Your task to perform on an android device: install app "Duolingo: language lessons" Image 0: 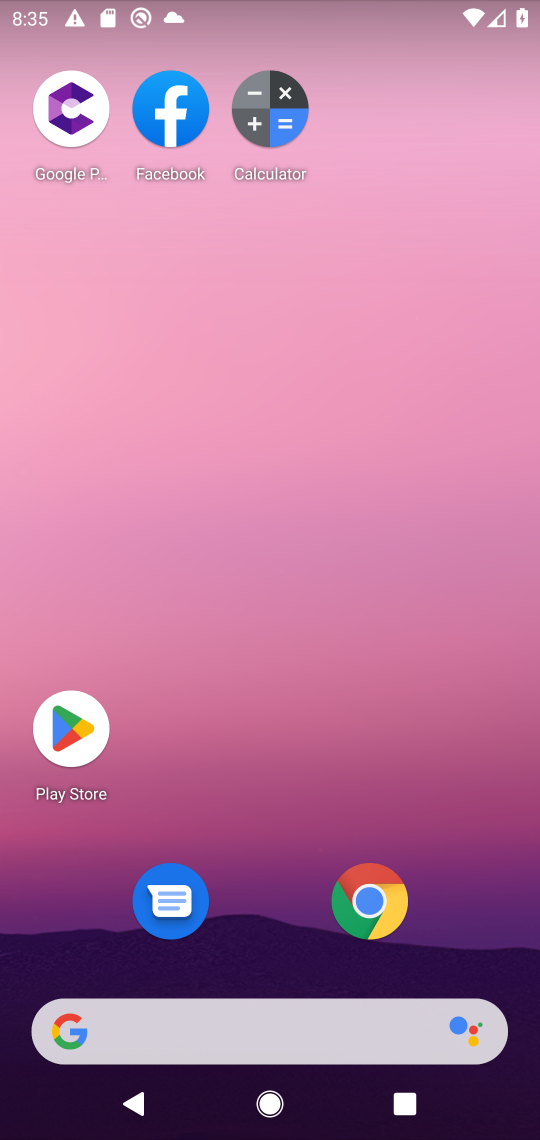
Step 0: click (53, 747)
Your task to perform on an android device: install app "Duolingo: language lessons" Image 1: 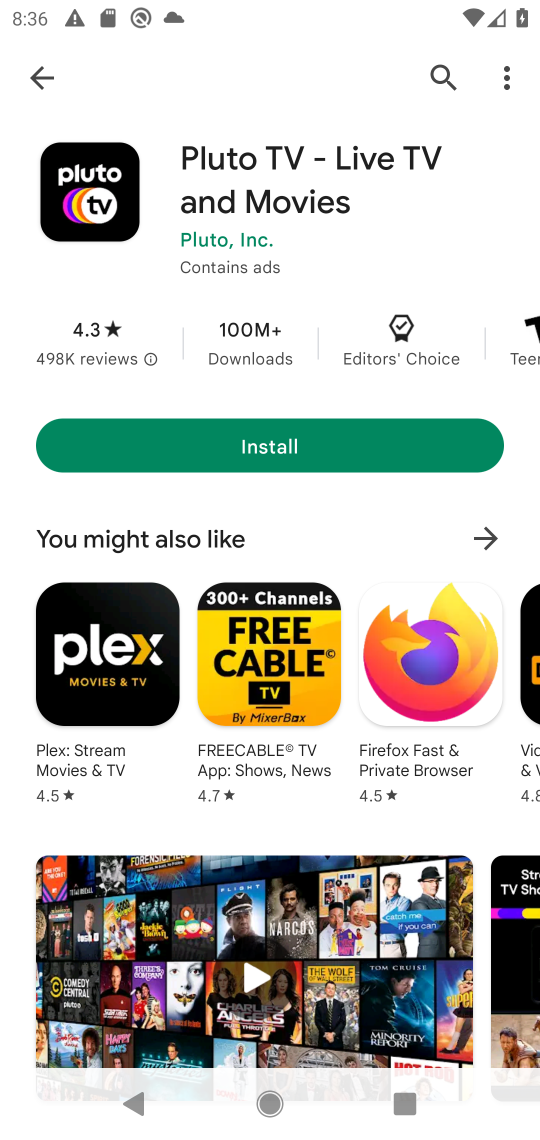
Step 1: click (439, 73)
Your task to perform on an android device: install app "Duolingo: language lessons" Image 2: 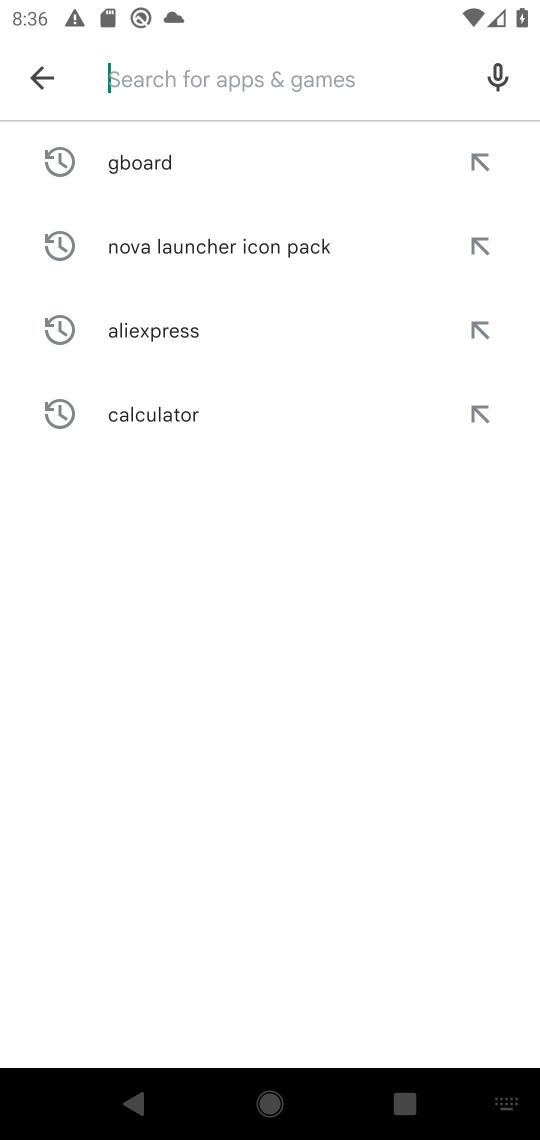
Step 2: type "Duolingo: language lessons"
Your task to perform on an android device: install app "Duolingo: language lessons" Image 3: 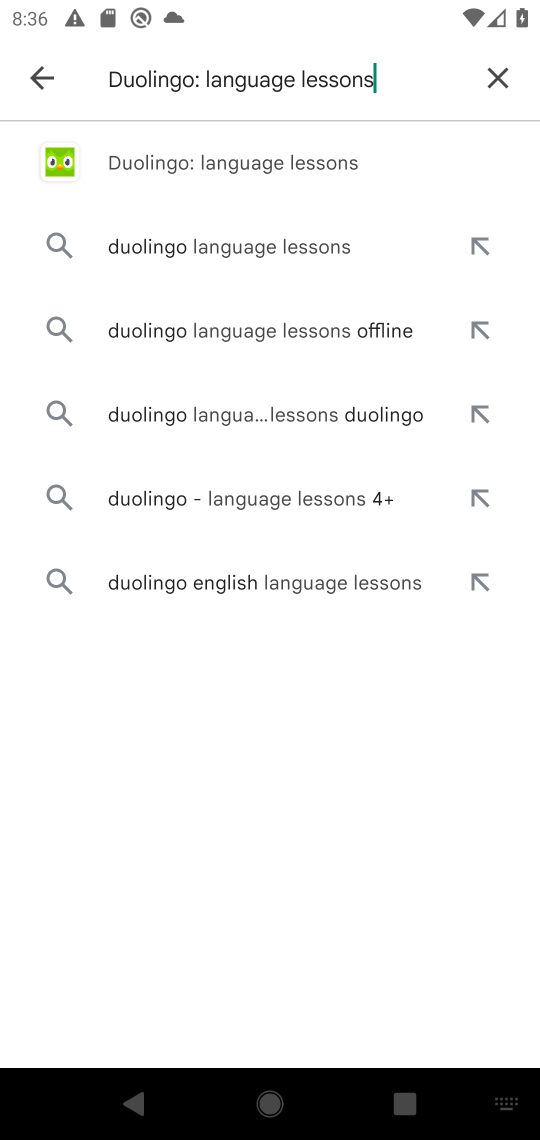
Step 3: click (228, 154)
Your task to perform on an android device: install app "Duolingo: language lessons" Image 4: 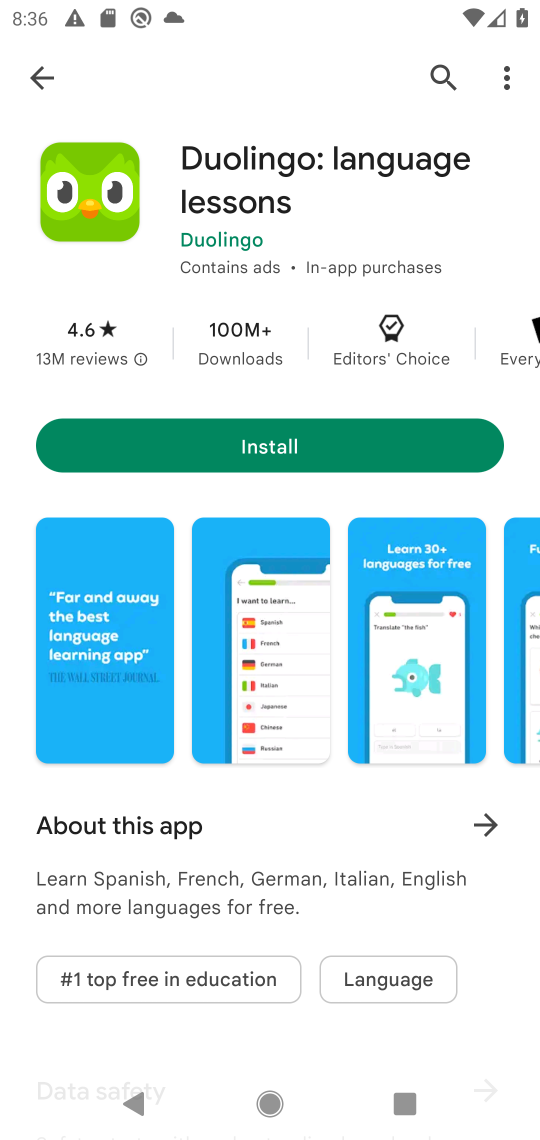
Step 4: click (395, 454)
Your task to perform on an android device: install app "Duolingo: language lessons" Image 5: 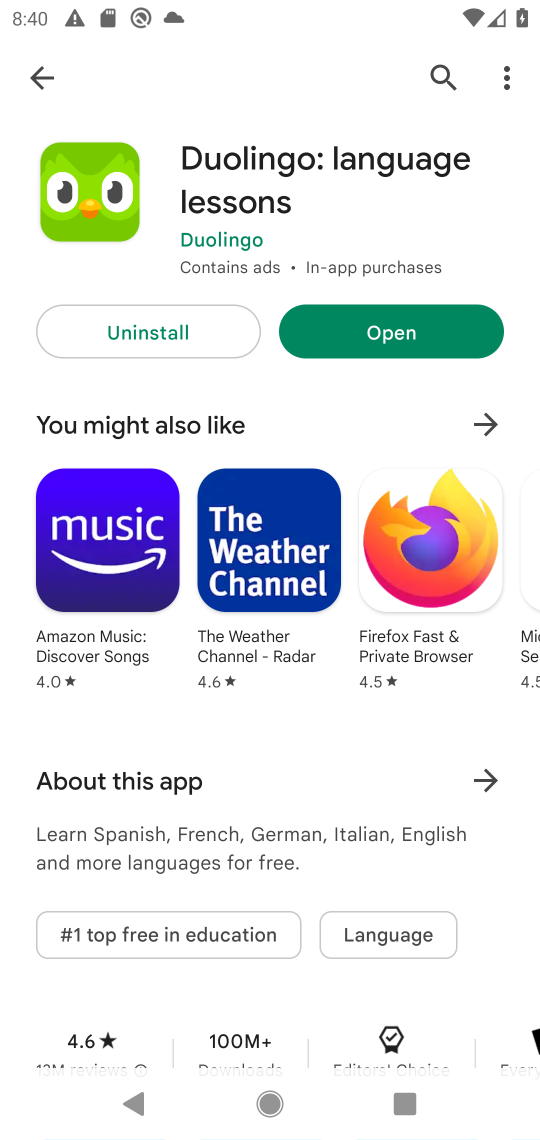
Step 5: task complete